Your task to perform on an android device: Open the web browser Image 0: 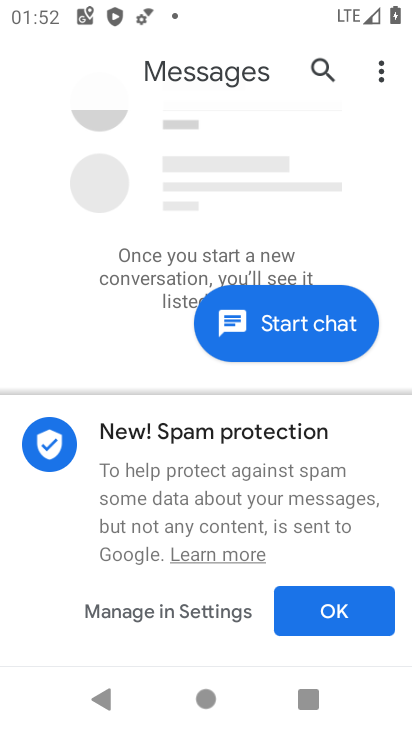
Step 0: press home button
Your task to perform on an android device: Open the web browser Image 1: 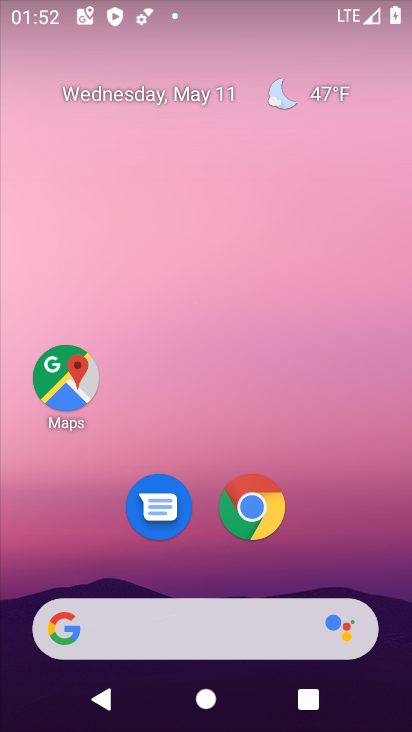
Step 1: click (250, 510)
Your task to perform on an android device: Open the web browser Image 2: 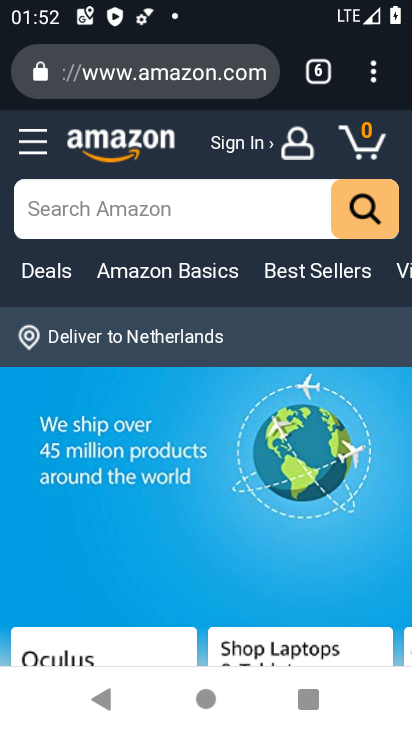
Step 2: task complete